Your task to perform on an android device: turn off location history Image 0: 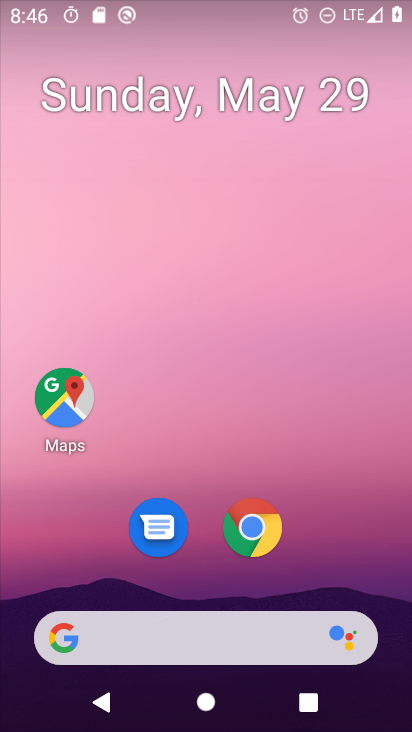
Step 0: drag from (378, 663) to (337, 57)
Your task to perform on an android device: turn off location history Image 1: 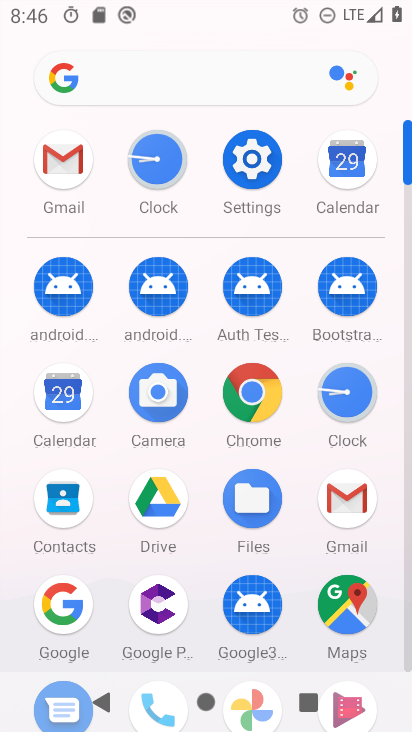
Step 1: click (258, 155)
Your task to perform on an android device: turn off location history Image 2: 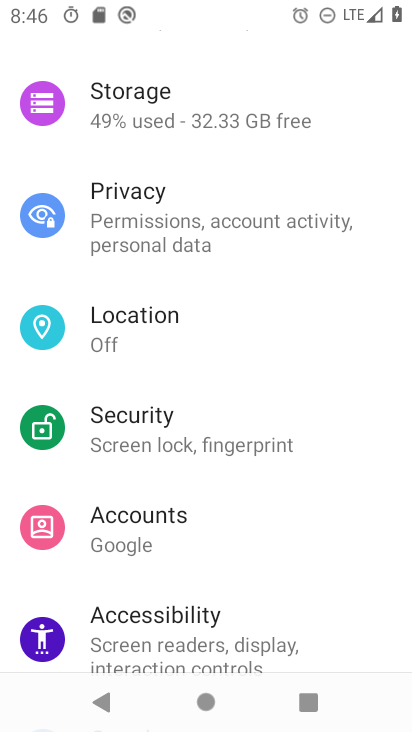
Step 2: click (148, 317)
Your task to perform on an android device: turn off location history Image 3: 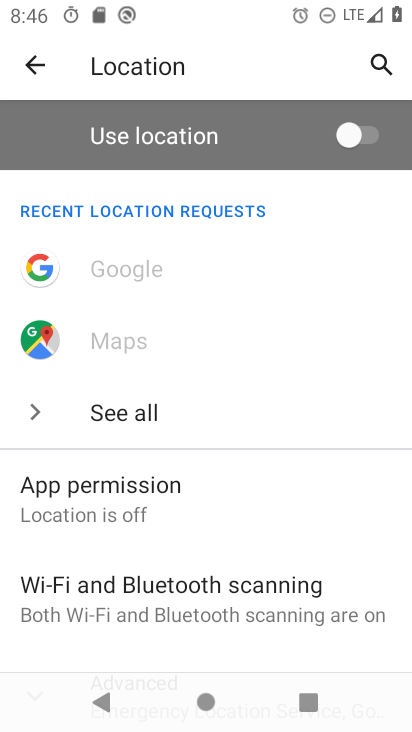
Step 3: drag from (135, 608) to (122, 186)
Your task to perform on an android device: turn off location history Image 4: 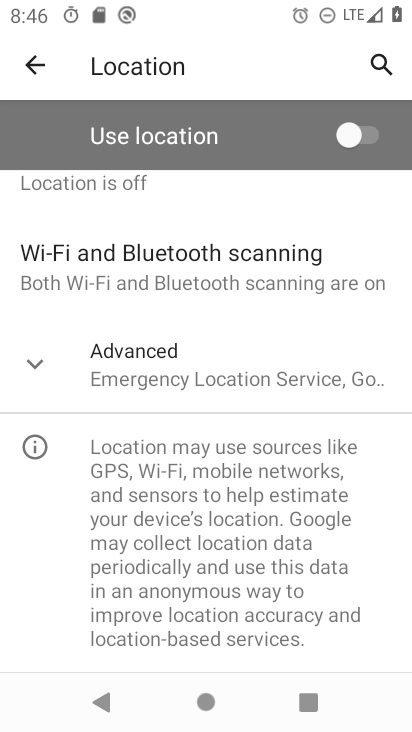
Step 4: click (159, 360)
Your task to perform on an android device: turn off location history Image 5: 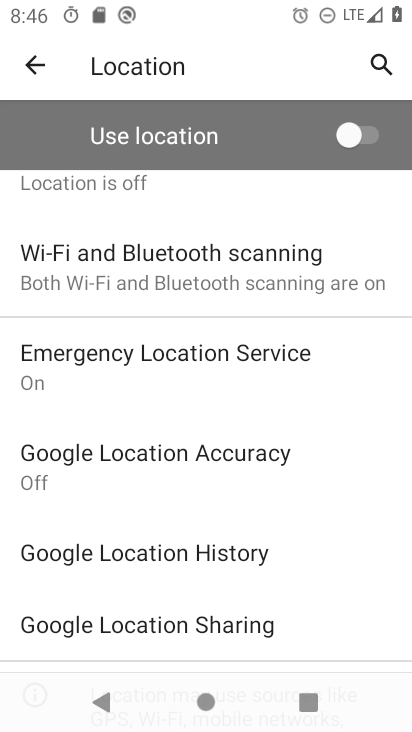
Step 5: click (189, 559)
Your task to perform on an android device: turn off location history Image 6: 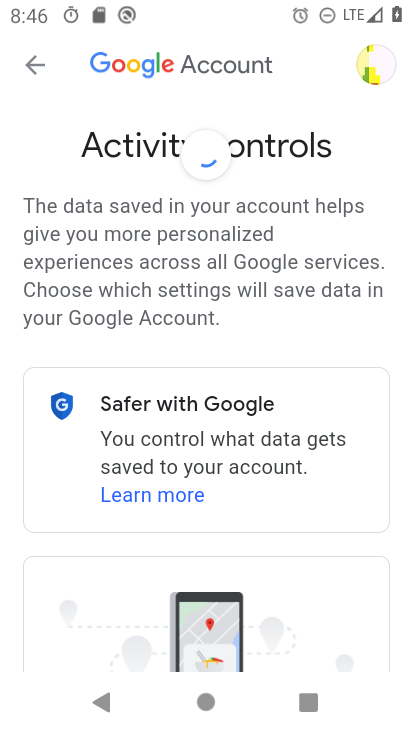
Step 6: task complete